Your task to perform on an android device: turn on wifi Image 0: 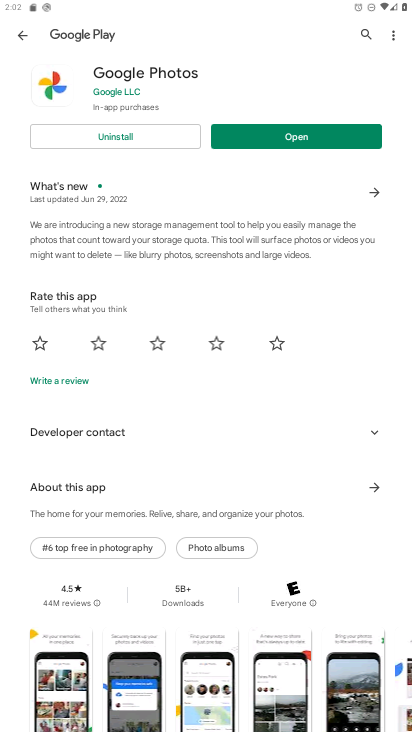
Step 0: press home button
Your task to perform on an android device: turn on wifi Image 1: 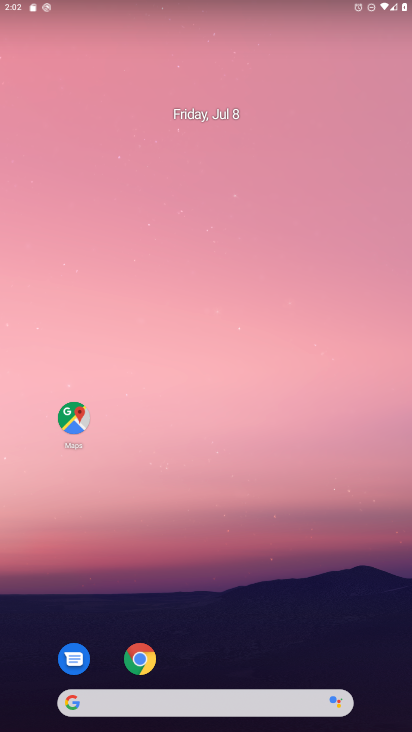
Step 1: drag from (226, 637) to (212, 220)
Your task to perform on an android device: turn on wifi Image 2: 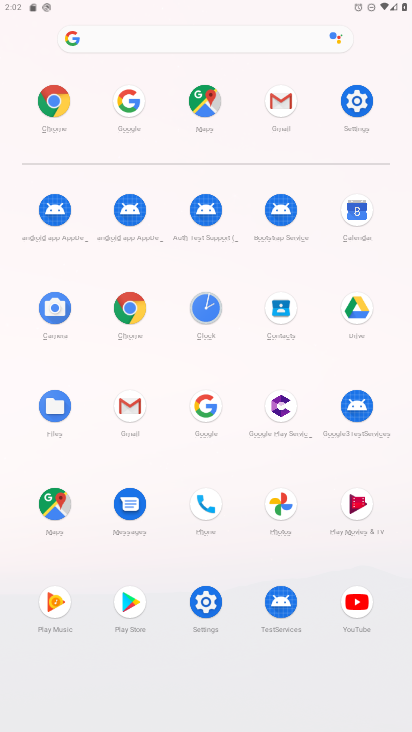
Step 2: click (359, 104)
Your task to perform on an android device: turn on wifi Image 3: 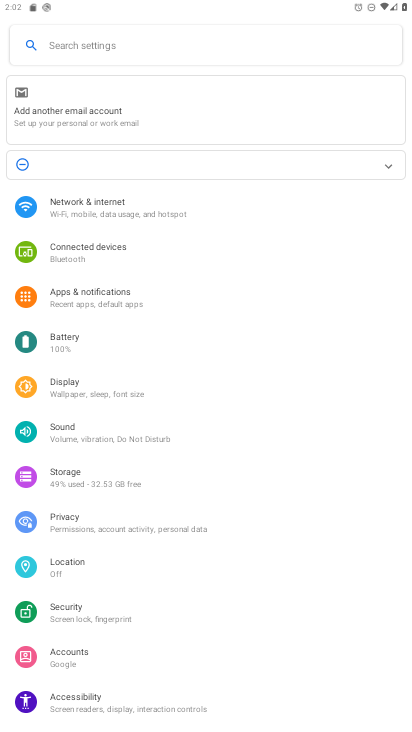
Step 3: click (90, 217)
Your task to perform on an android device: turn on wifi Image 4: 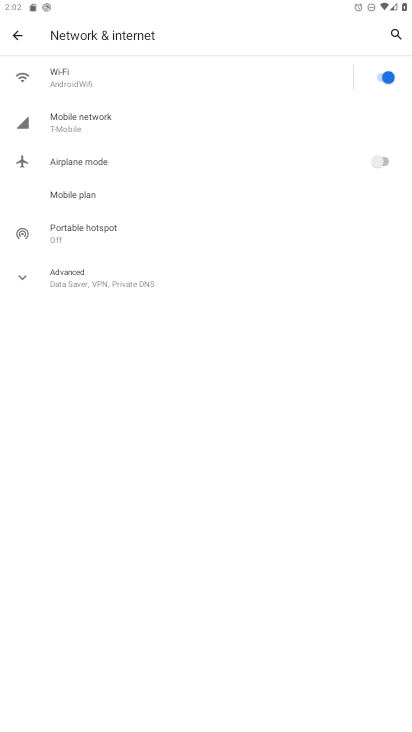
Step 4: task complete